Your task to perform on an android device: toggle notification dots Image 0: 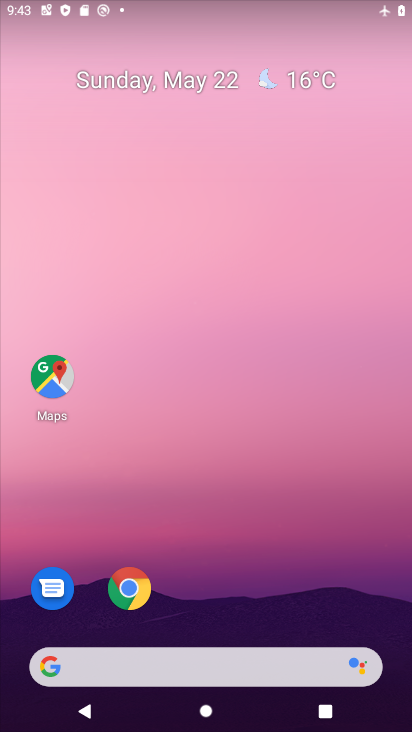
Step 0: drag from (215, 590) to (220, 159)
Your task to perform on an android device: toggle notification dots Image 1: 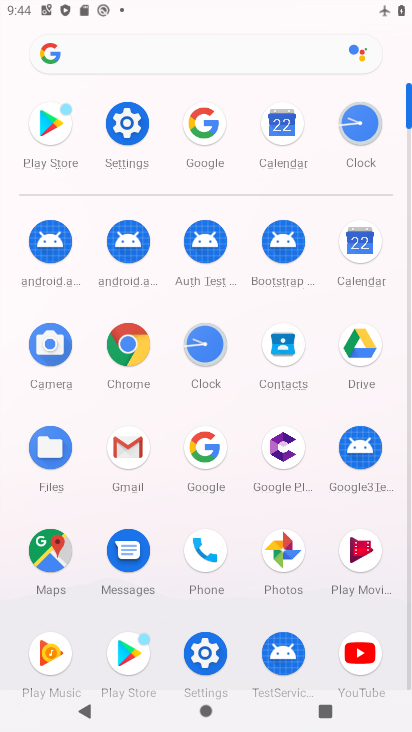
Step 1: click (140, 132)
Your task to perform on an android device: toggle notification dots Image 2: 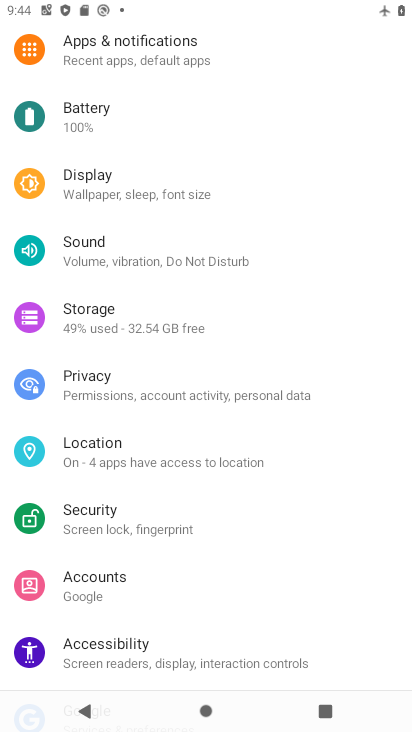
Step 2: click (199, 64)
Your task to perform on an android device: toggle notification dots Image 3: 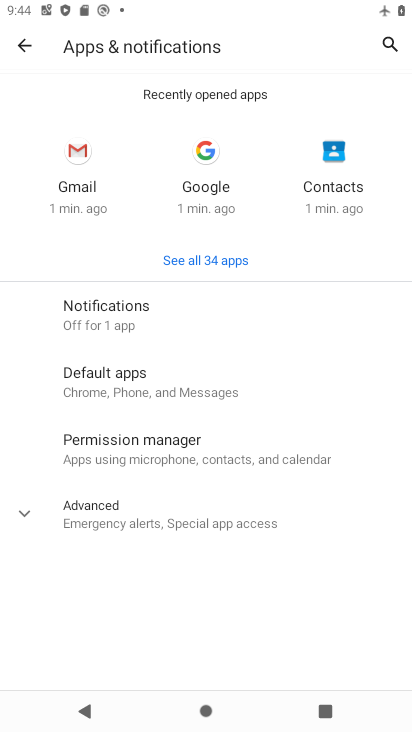
Step 3: click (171, 296)
Your task to perform on an android device: toggle notification dots Image 4: 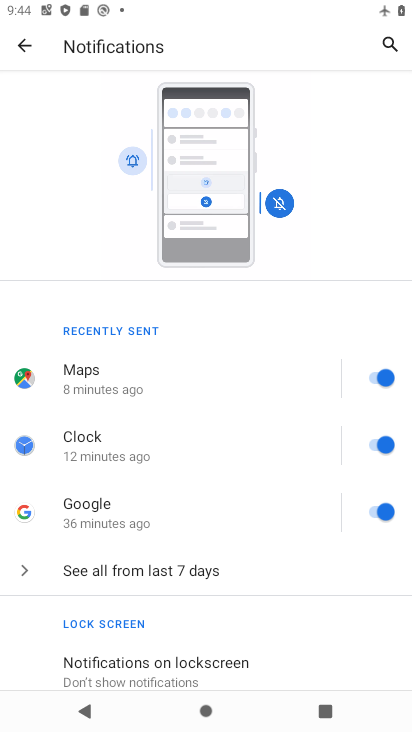
Step 4: drag from (192, 605) to (231, 269)
Your task to perform on an android device: toggle notification dots Image 5: 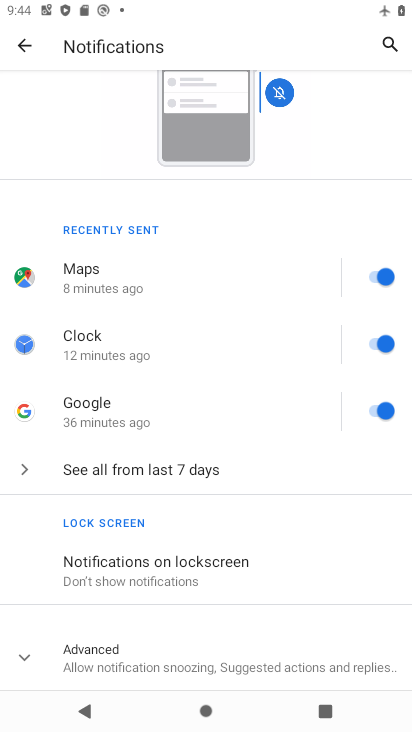
Step 5: click (170, 672)
Your task to perform on an android device: toggle notification dots Image 6: 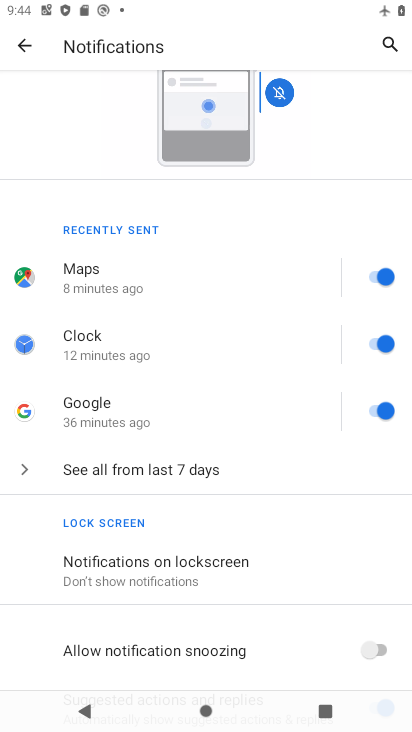
Step 6: drag from (175, 652) to (250, 411)
Your task to perform on an android device: toggle notification dots Image 7: 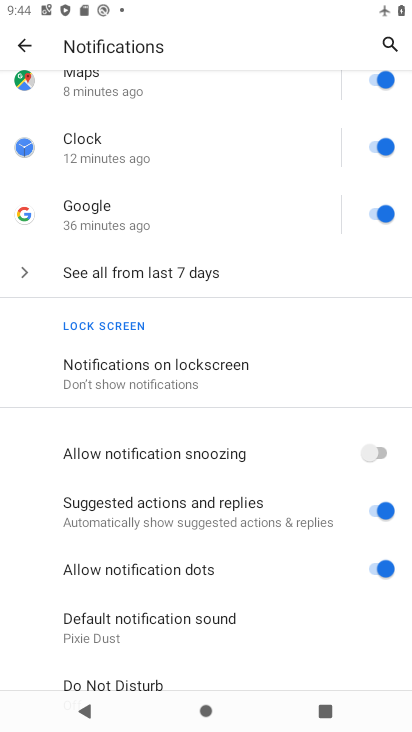
Step 7: drag from (238, 630) to (238, 384)
Your task to perform on an android device: toggle notification dots Image 8: 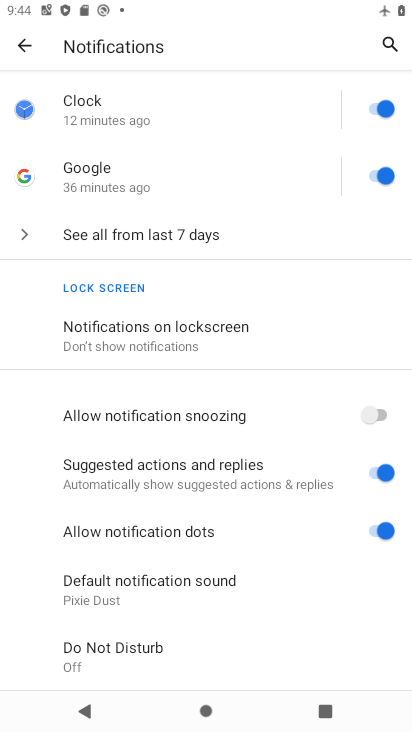
Step 8: click (386, 523)
Your task to perform on an android device: toggle notification dots Image 9: 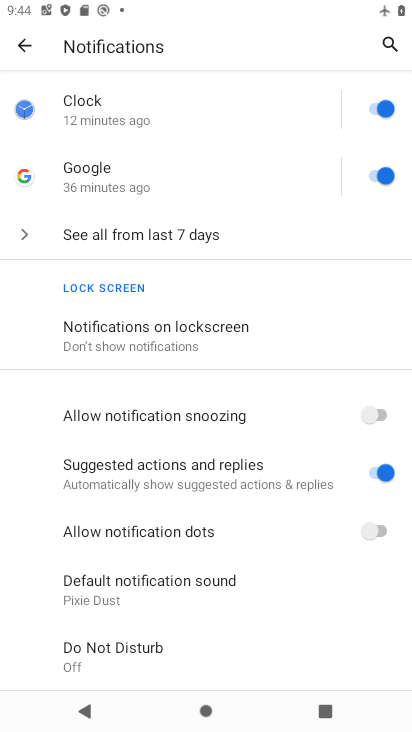
Step 9: task complete